Your task to perform on an android device: open app "Messenger Lite" (install if not already installed), go to login, and select forgot password Image 0: 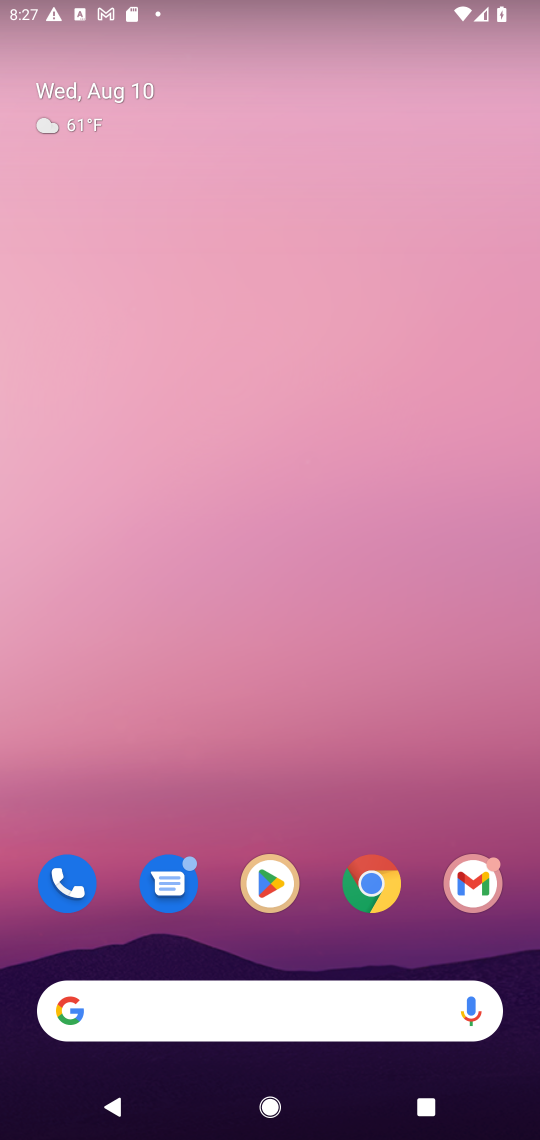
Step 0: click (300, 866)
Your task to perform on an android device: open app "Messenger Lite" (install if not already installed), go to login, and select forgot password Image 1: 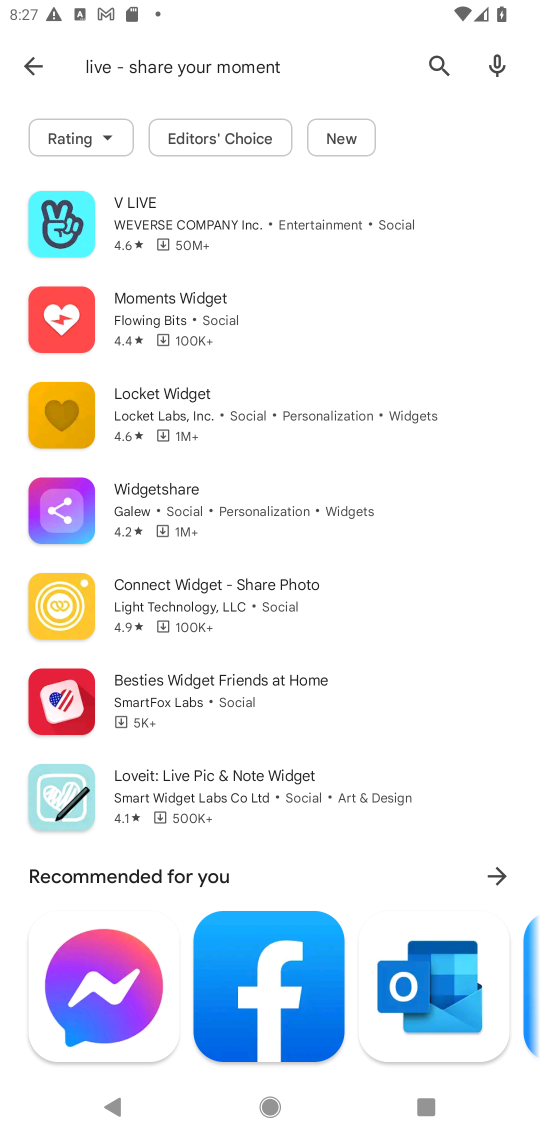
Step 1: click (433, 53)
Your task to perform on an android device: open app "Messenger Lite" (install if not already installed), go to login, and select forgot password Image 2: 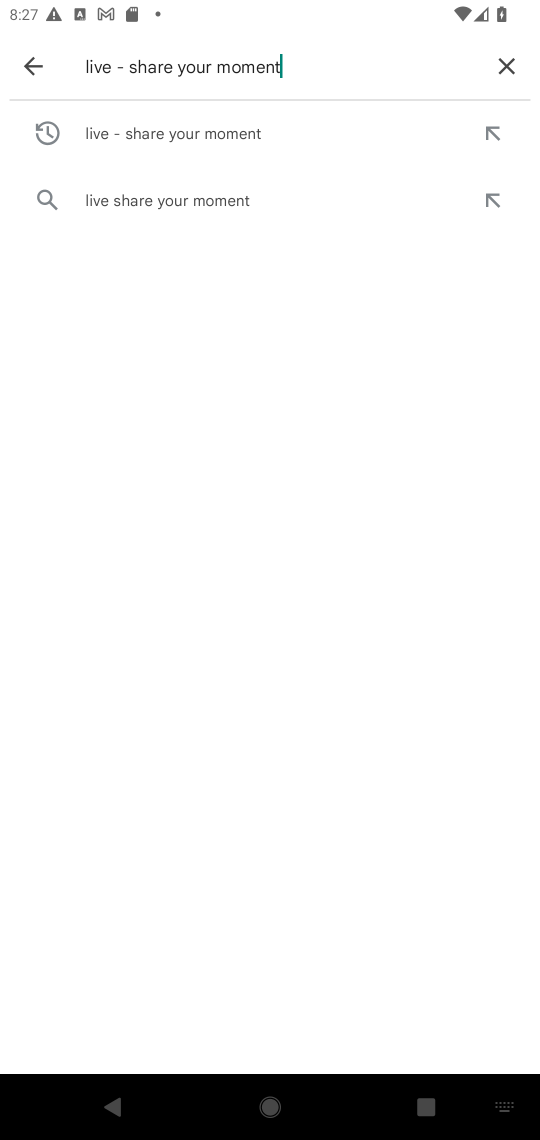
Step 2: click (504, 52)
Your task to perform on an android device: open app "Messenger Lite" (install if not already installed), go to login, and select forgot password Image 3: 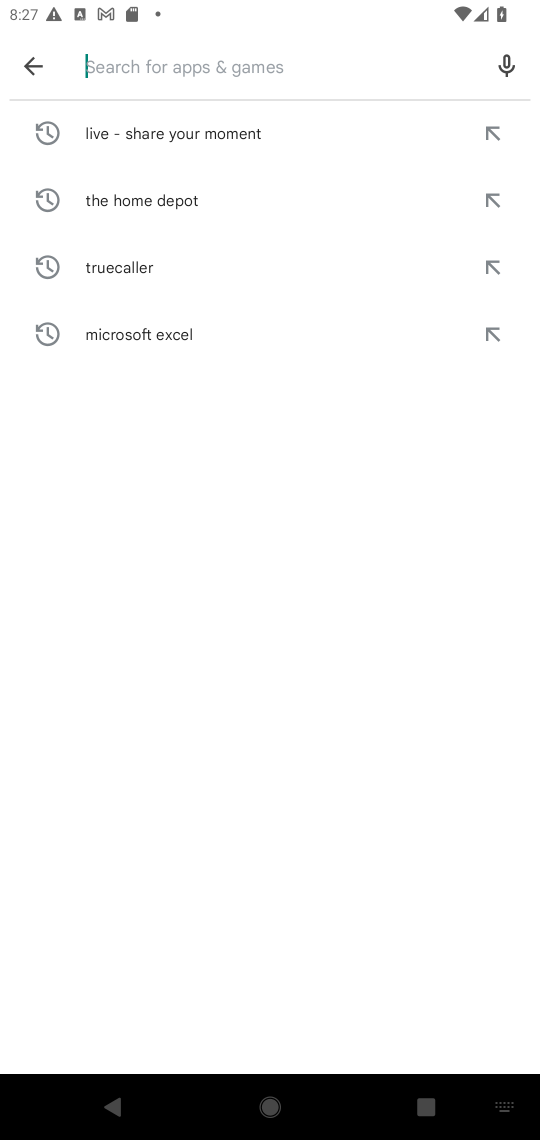
Step 3: type "Messenger Lite"
Your task to perform on an android device: open app "Messenger Lite" (install if not already installed), go to login, and select forgot password Image 4: 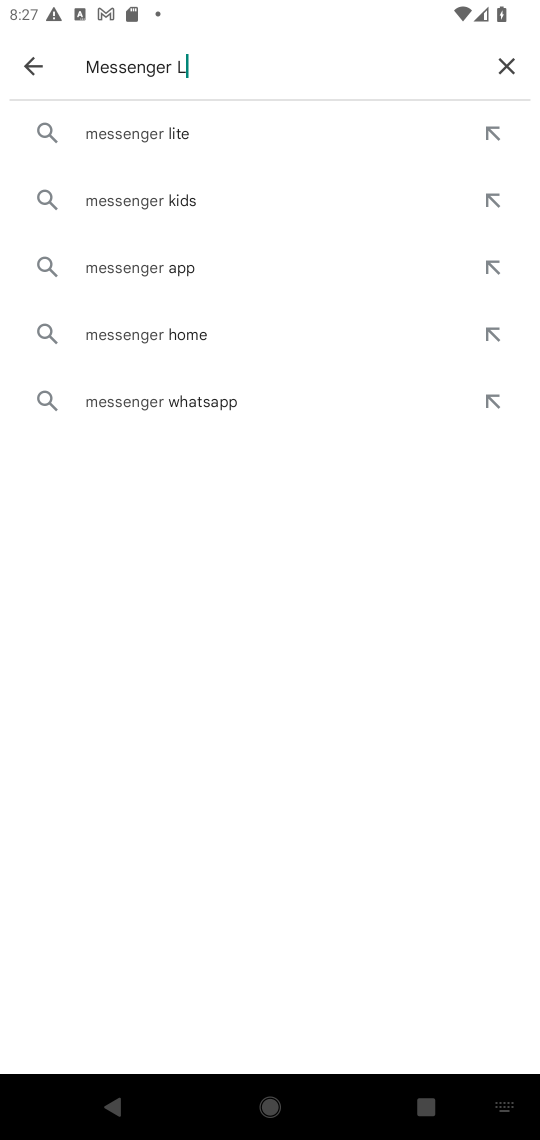
Step 4: type ""
Your task to perform on an android device: open app "Messenger Lite" (install if not already installed), go to login, and select forgot password Image 5: 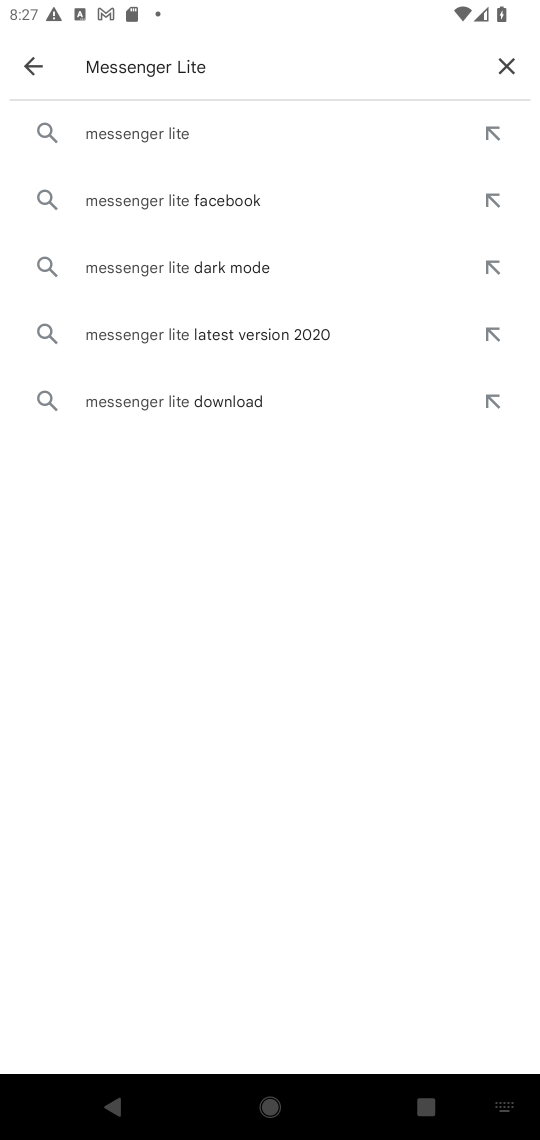
Step 5: click (177, 127)
Your task to perform on an android device: open app "Messenger Lite" (install if not already installed), go to login, and select forgot password Image 6: 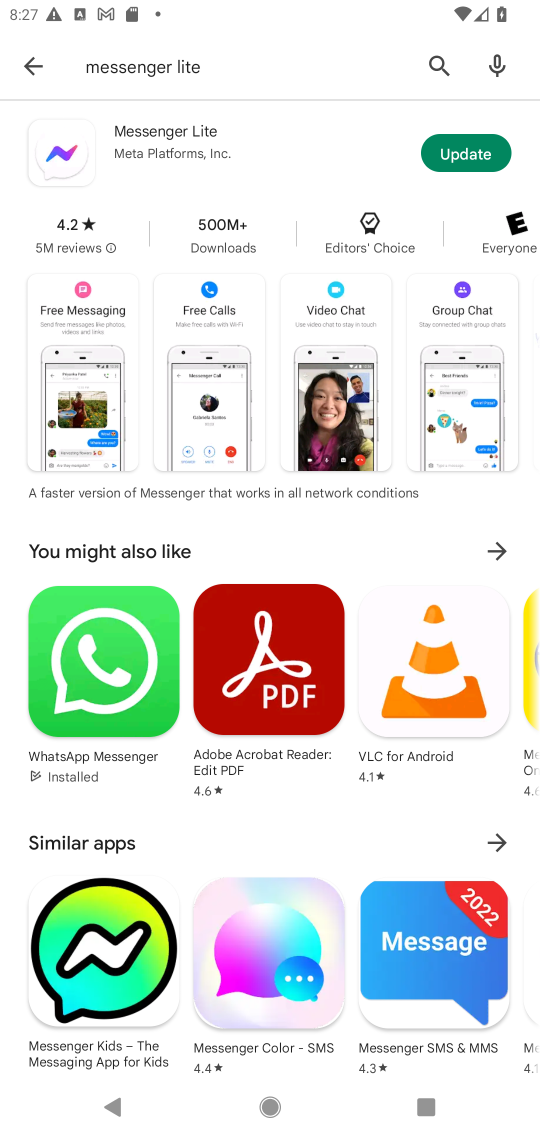
Step 6: click (292, 111)
Your task to perform on an android device: open app "Messenger Lite" (install if not already installed), go to login, and select forgot password Image 7: 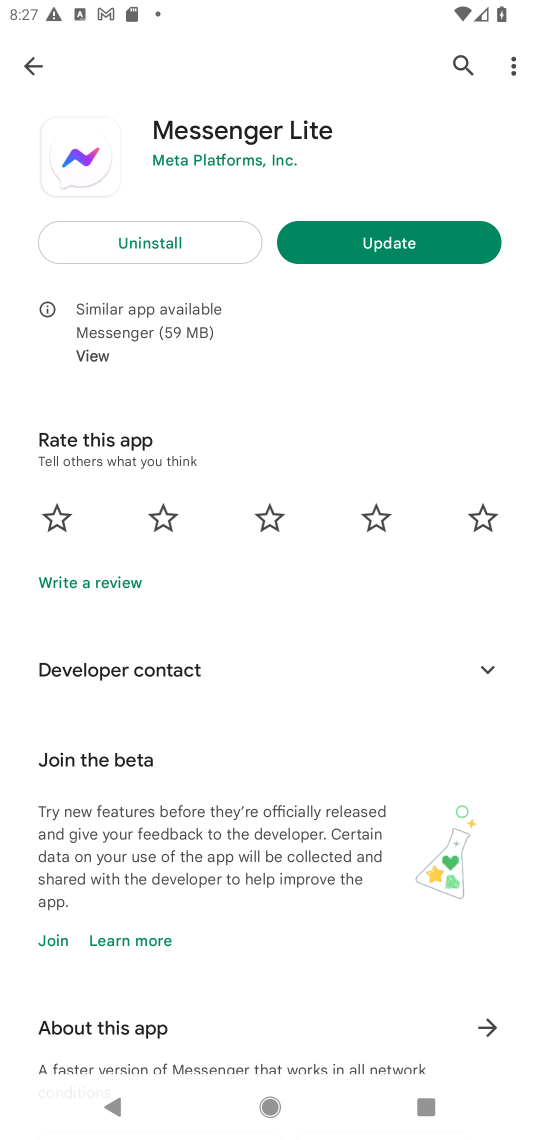
Step 7: click (319, 238)
Your task to perform on an android device: open app "Messenger Lite" (install if not already installed), go to login, and select forgot password Image 8: 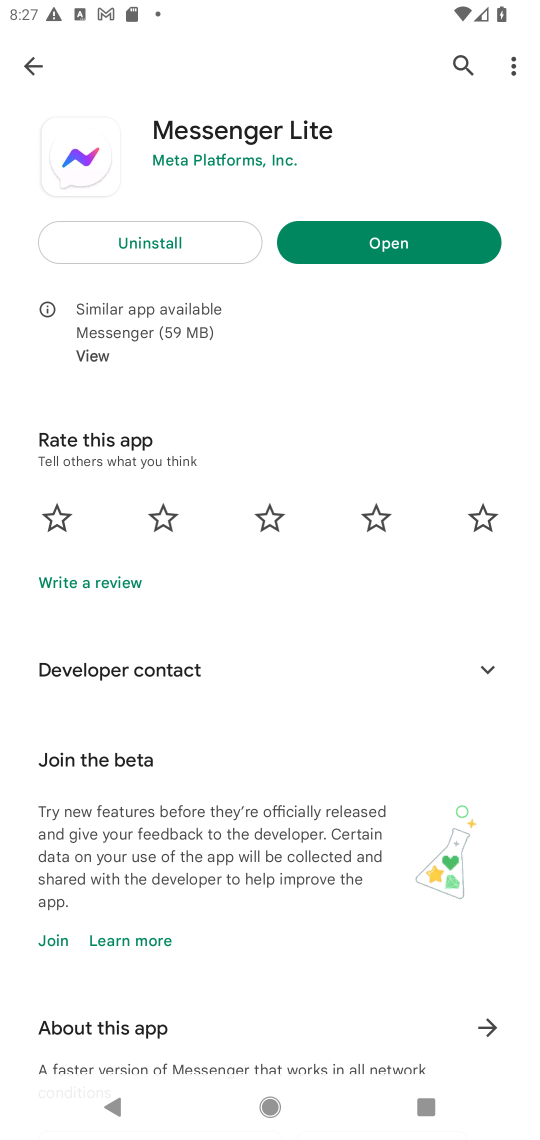
Step 8: click (362, 256)
Your task to perform on an android device: open app "Messenger Lite" (install if not already installed), go to login, and select forgot password Image 9: 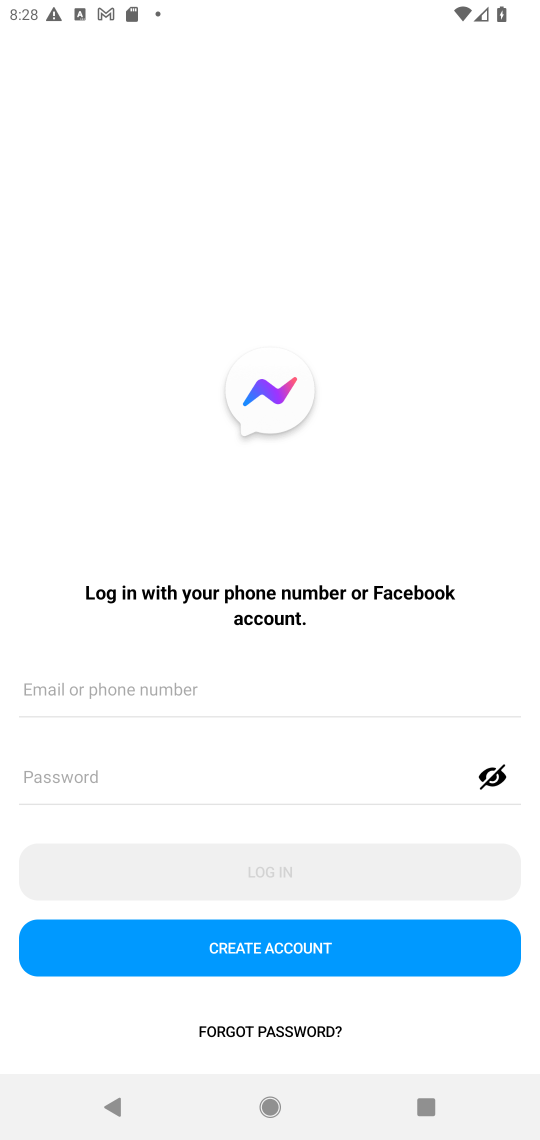
Step 9: task complete